Your task to perform on an android device: Go to network settings Image 0: 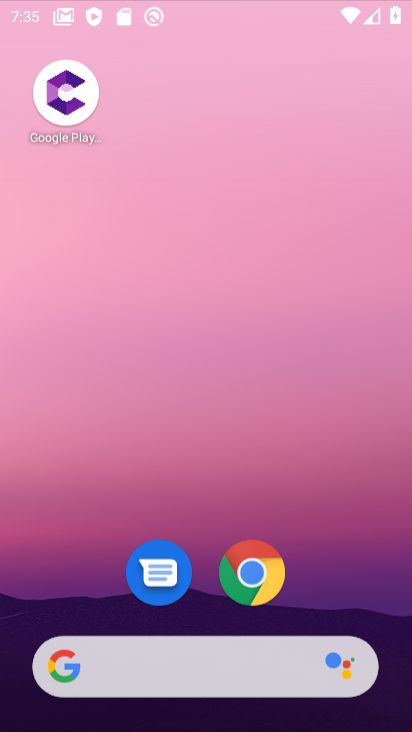
Step 0: drag from (406, 384) to (27, 44)
Your task to perform on an android device: Go to network settings Image 1: 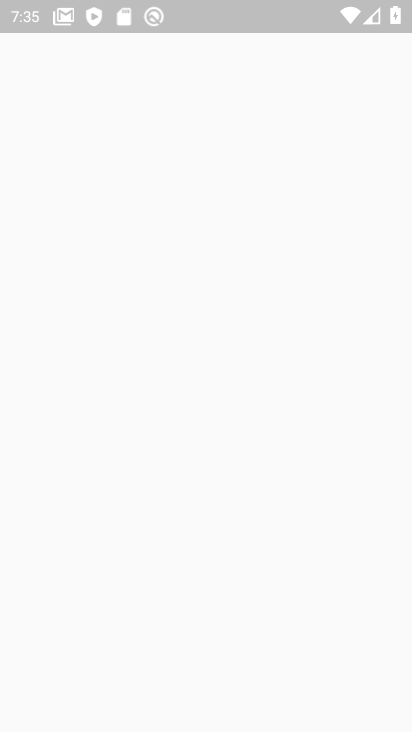
Step 1: press home button
Your task to perform on an android device: Go to network settings Image 2: 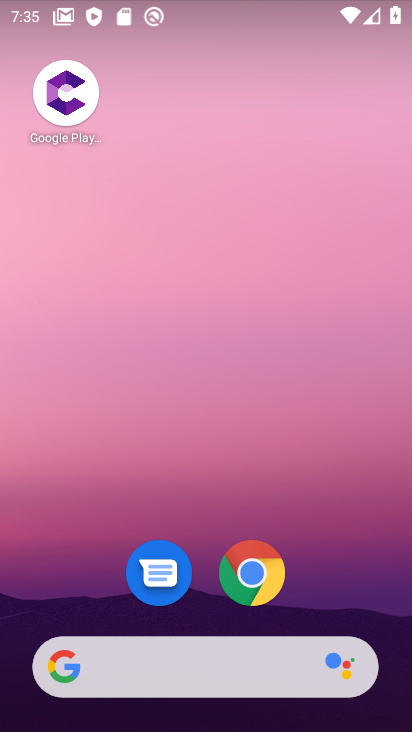
Step 2: drag from (349, 564) to (296, 1)
Your task to perform on an android device: Go to network settings Image 3: 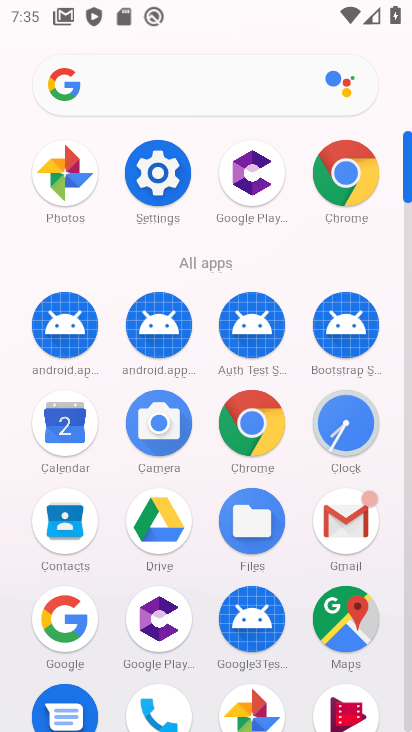
Step 3: click (157, 180)
Your task to perform on an android device: Go to network settings Image 4: 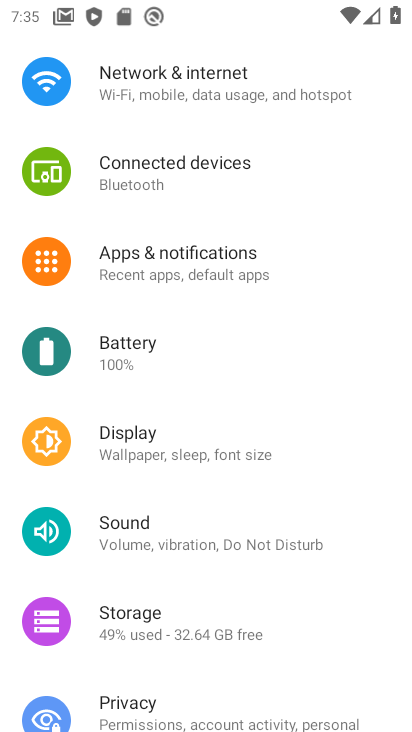
Step 4: drag from (245, 148) to (278, 598)
Your task to perform on an android device: Go to network settings Image 5: 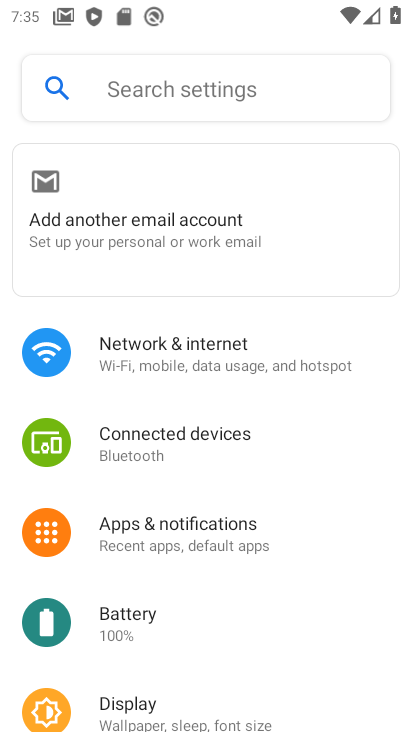
Step 5: click (200, 362)
Your task to perform on an android device: Go to network settings Image 6: 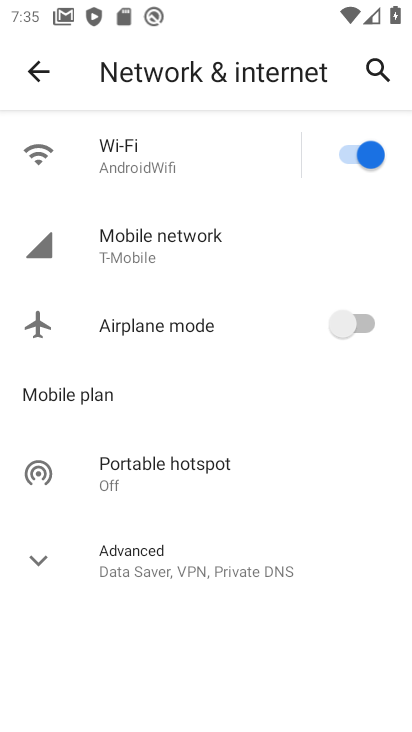
Step 6: task complete